Your task to perform on an android device: visit the assistant section in the google photos Image 0: 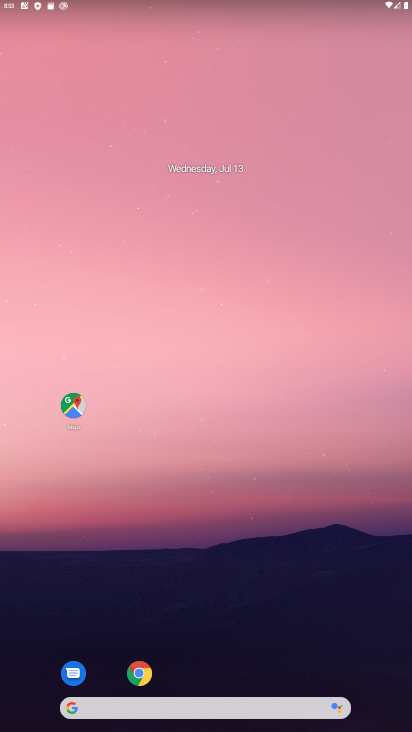
Step 0: drag from (187, 667) to (200, 34)
Your task to perform on an android device: visit the assistant section in the google photos Image 1: 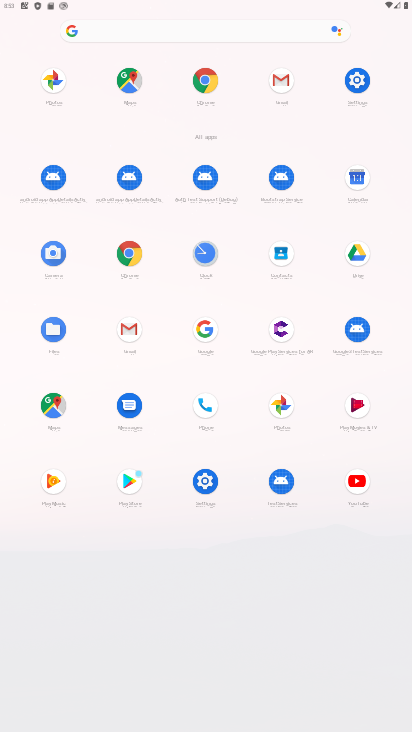
Step 1: click (47, 89)
Your task to perform on an android device: visit the assistant section in the google photos Image 2: 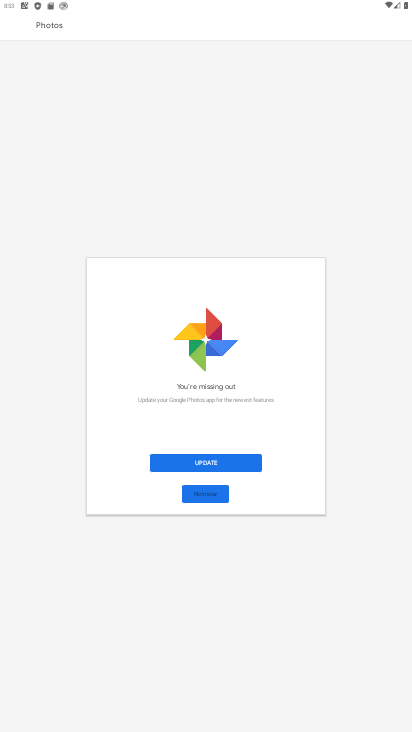
Step 2: click (201, 487)
Your task to perform on an android device: visit the assistant section in the google photos Image 3: 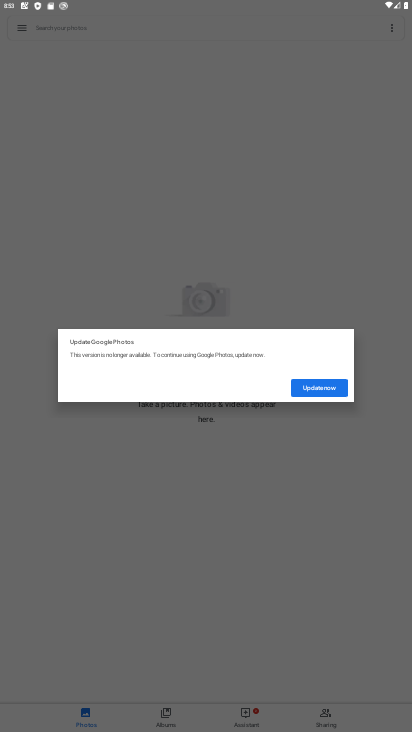
Step 3: click (327, 394)
Your task to perform on an android device: visit the assistant section in the google photos Image 4: 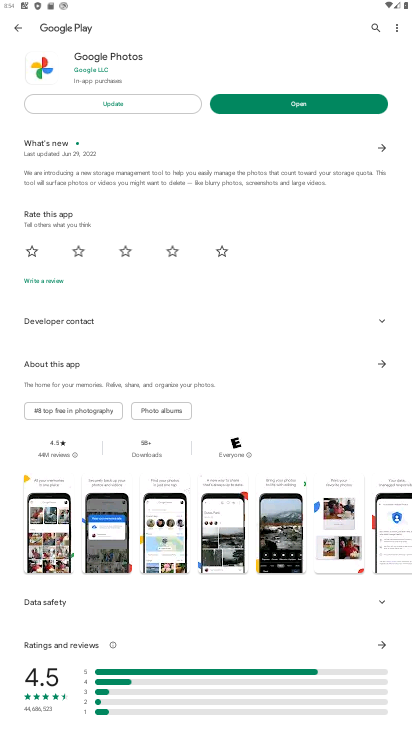
Step 4: click (292, 98)
Your task to perform on an android device: visit the assistant section in the google photos Image 5: 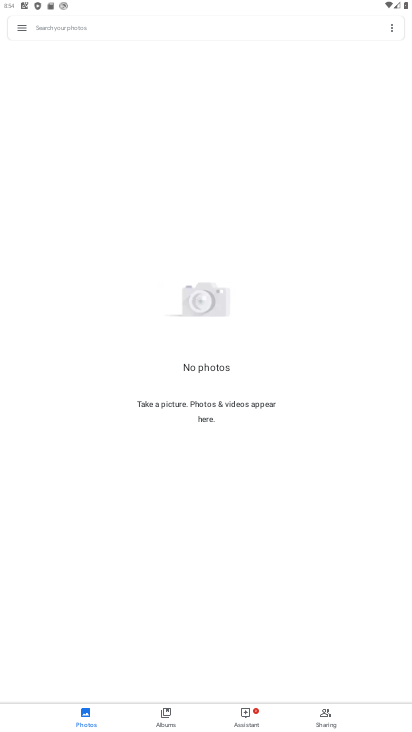
Step 5: click (239, 715)
Your task to perform on an android device: visit the assistant section in the google photos Image 6: 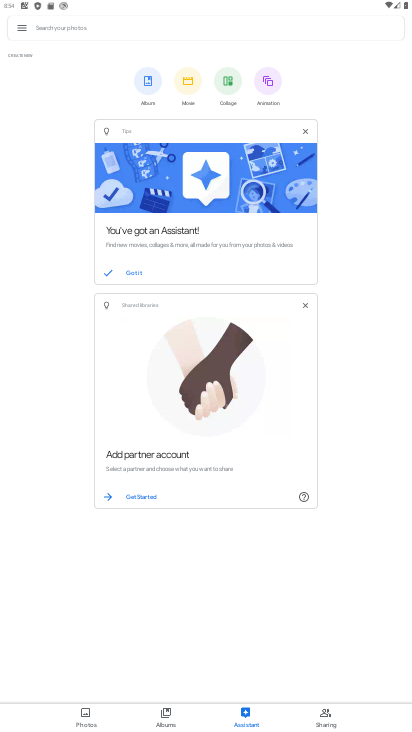
Step 6: task complete